Your task to perform on an android device: Turn on the flashlight Image 0: 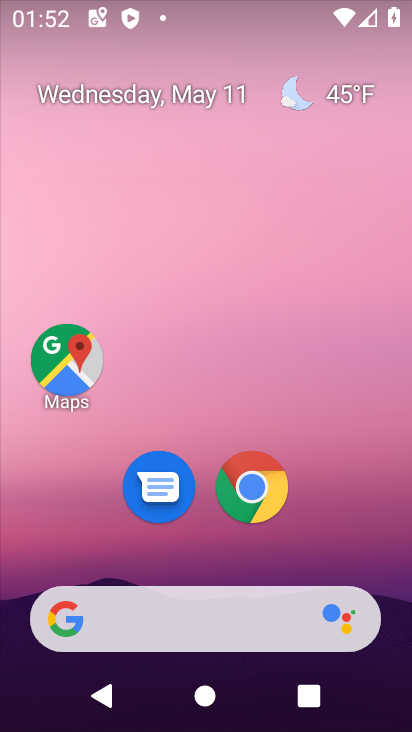
Step 0: drag from (304, 4) to (271, 548)
Your task to perform on an android device: Turn on the flashlight Image 1: 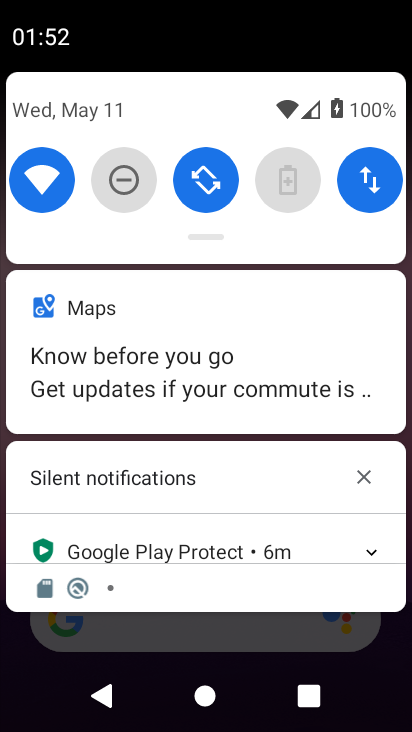
Step 1: task complete